Your task to perform on an android device: open app "PlayWell" (install if not already installed), go to login, and select forgot password Image 0: 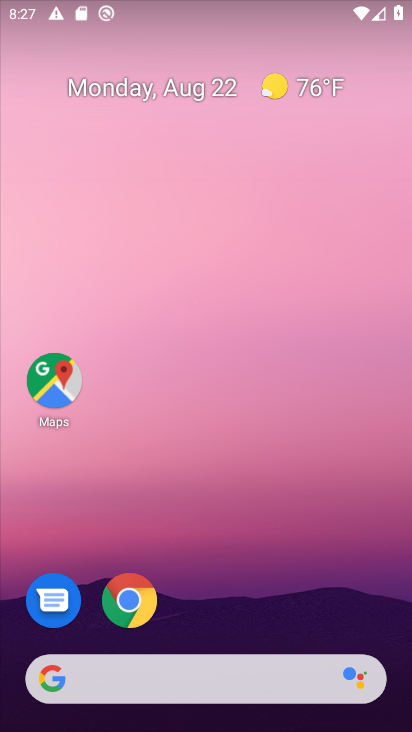
Step 0: drag from (211, 561) to (246, 102)
Your task to perform on an android device: open app "PlayWell" (install if not already installed), go to login, and select forgot password Image 1: 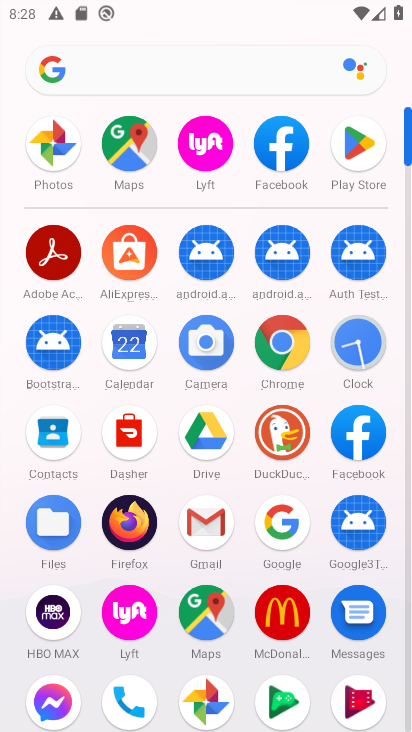
Step 1: click (344, 140)
Your task to perform on an android device: open app "PlayWell" (install if not already installed), go to login, and select forgot password Image 2: 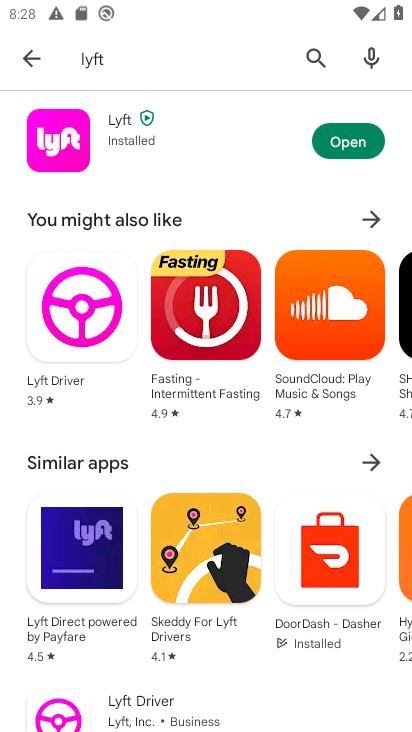
Step 2: click (323, 60)
Your task to perform on an android device: open app "PlayWell" (install if not already installed), go to login, and select forgot password Image 3: 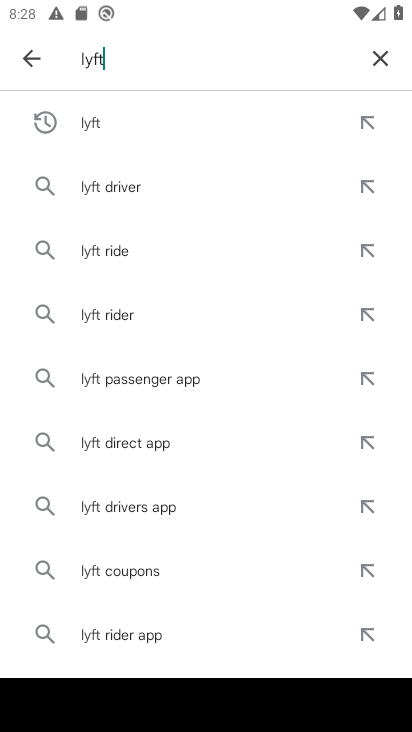
Step 3: drag from (323, 60) to (368, 60)
Your task to perform on an android device: open app "PlayWell" (install if not already installed), go to login, and select forgot password Image 4: 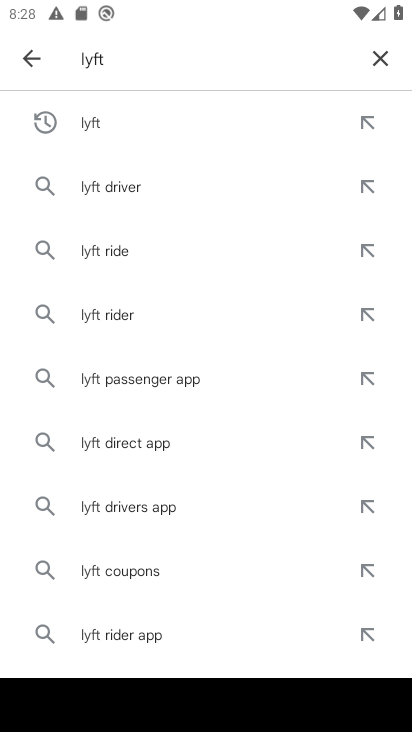
Step 4: type "PlayWell"
Your task to perform on an android device: open app "PlayWell" (install if not already installed), go to login, and select forgot password Image 5: 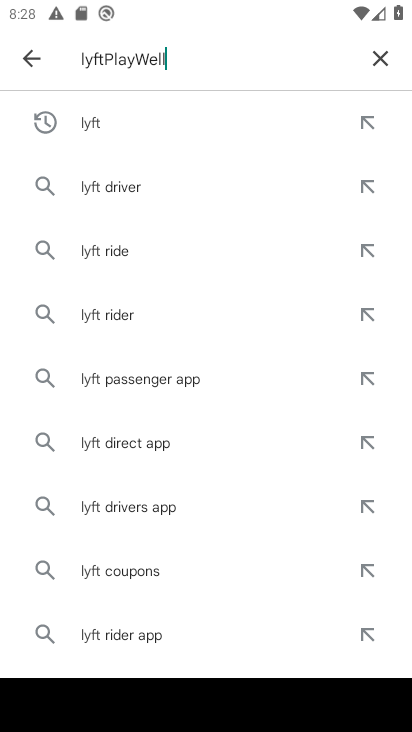
Step 5: type ""
Your task to perform on an android device: open app "PlayWell" (install if not already installed), go to login, and select forgot password Image 6: 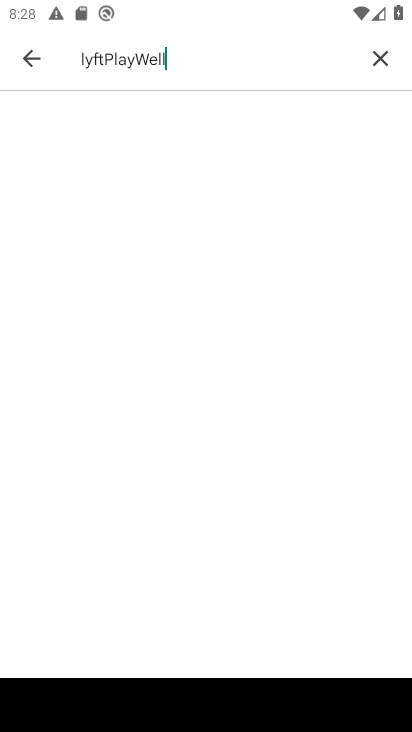
Step 6: click (375, 59)
Your task to perform on an android device: open app "PlayWell" (install if not already installed), go to login, and select forgot password Image 7: 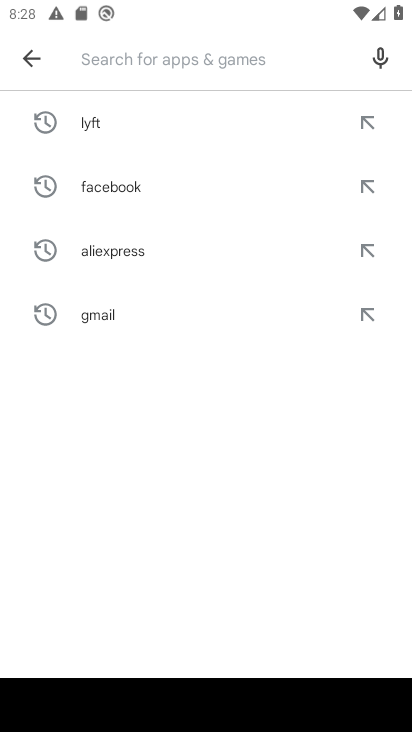
Step 7: type "PlayWell"
Your task to perform on an android device: open app "PlayWell" (install if not already installed), go to login, and select forgot password Image 8: 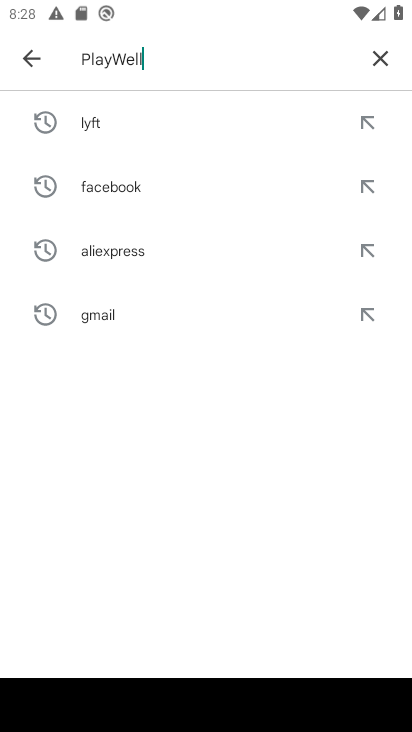
Step 8: type ""
Your task to perform on an android device: open app "PlayWell" (install if not already installed), go to login, and select forgot password Image 9: 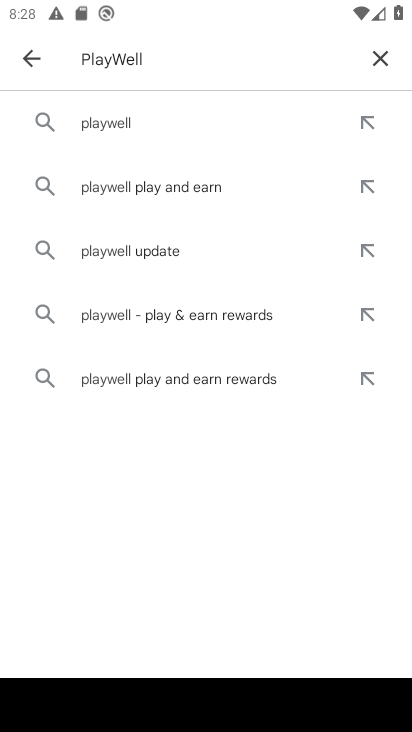
Step 9: click (116, 121)
Your task to perform on an android device: open app "PlayWell" (install if not already installed), go to login, and select forgot password Image 10: 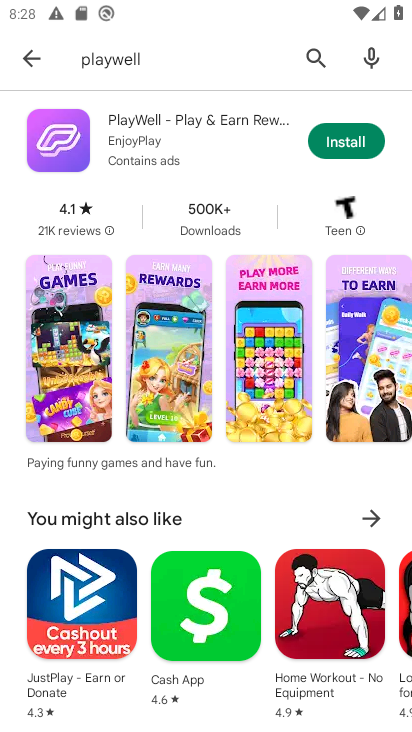
Step 10: click (335, 143)
Your task to perform on an android device: open app "PlayWell" (install if not already installed), go to login, and select forgot password Image 11: 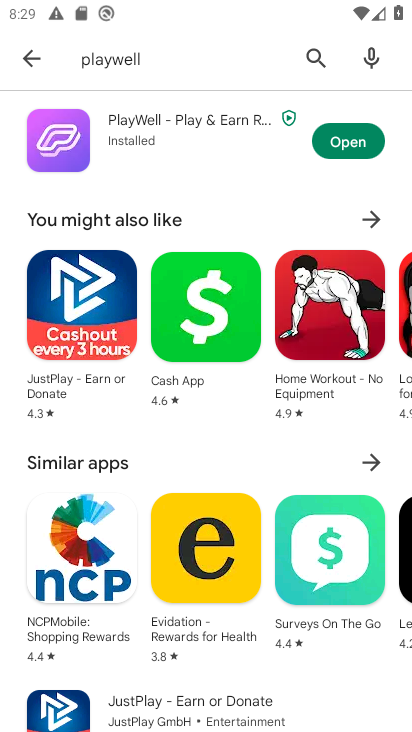
Step 11: click (335, 143)
Your task to perform on an android device: open app "PlayWell" (install if not already installed), go to login, and select forgot password Image 12: 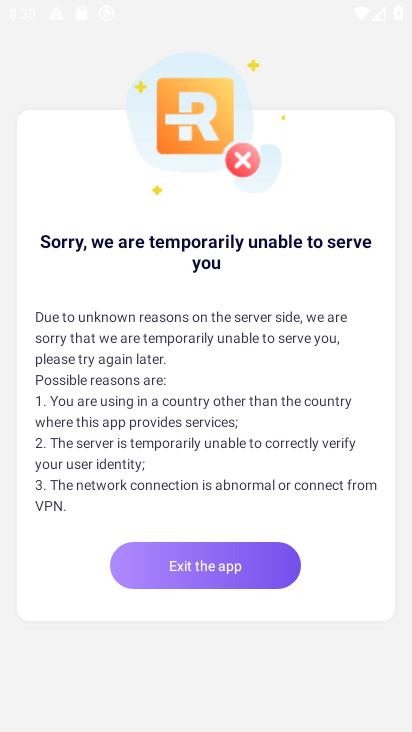
Step 12: task complete